Your task to perform on an android device: toggle location history Image 0: 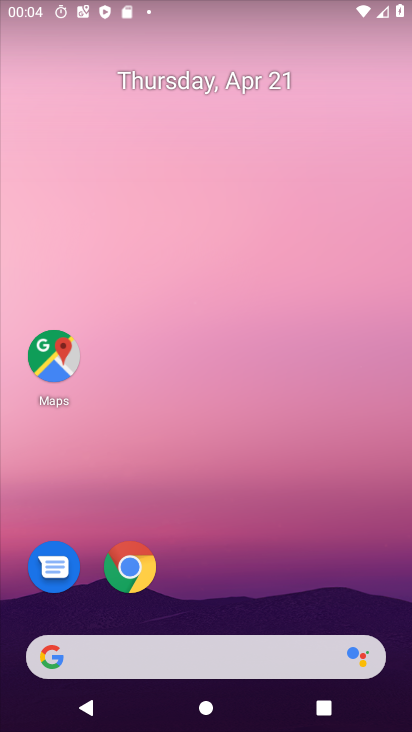
Step 0: drag from (235, 371) to (240, 259)
Your task to perform on an android device: toggle location history Image 1: 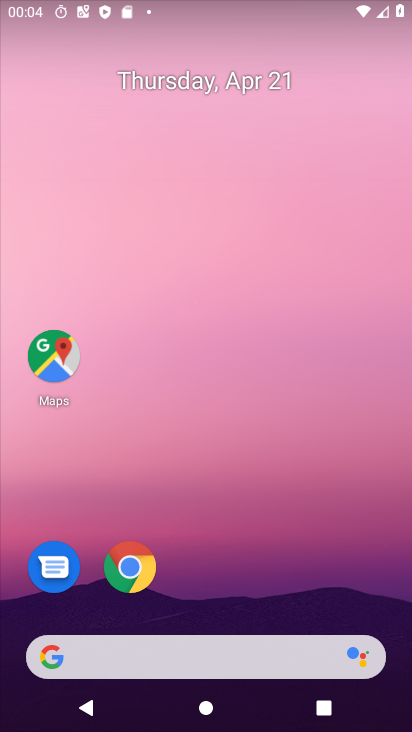
Step 1: drag from (192, 513) to (242, 169)
Your task to perform on an android device: toggle location history Image 2: 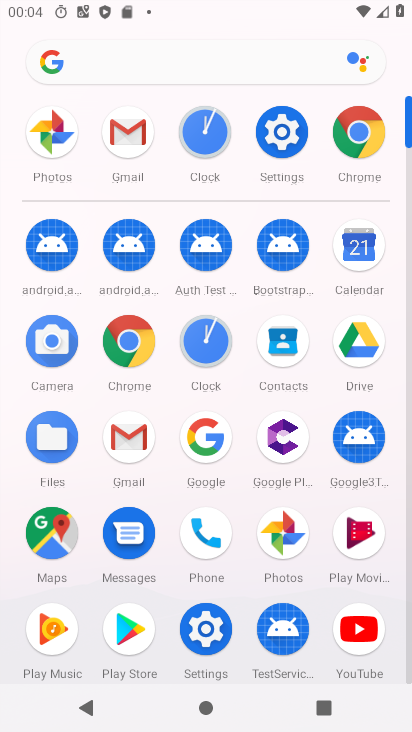
Step 2: click (132, 330)
Your task to perform on an android device: toggle location history Image 3: 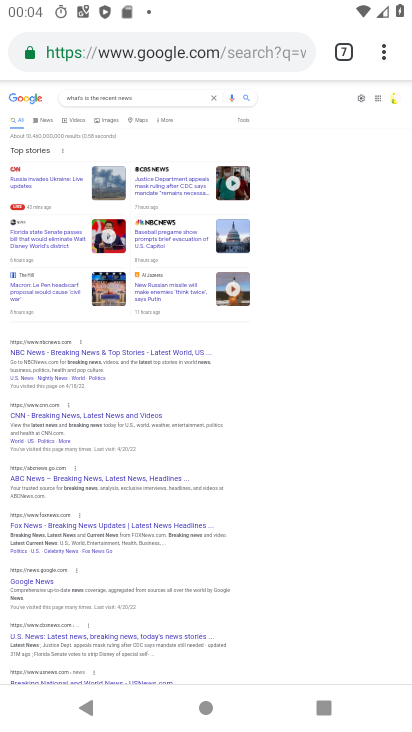
Step 3: press home button
Your task to perform on an android device: toggle location history Image 4: 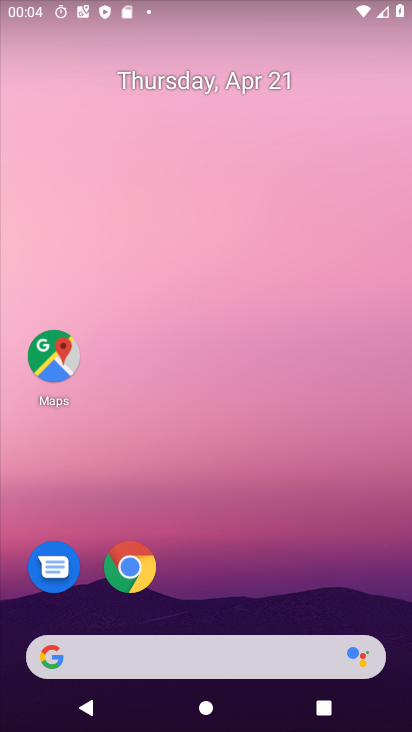
Step 4: drag from (226, 580) to (272, 198)
Your task to perform on an android device: toggle location history Image 5: 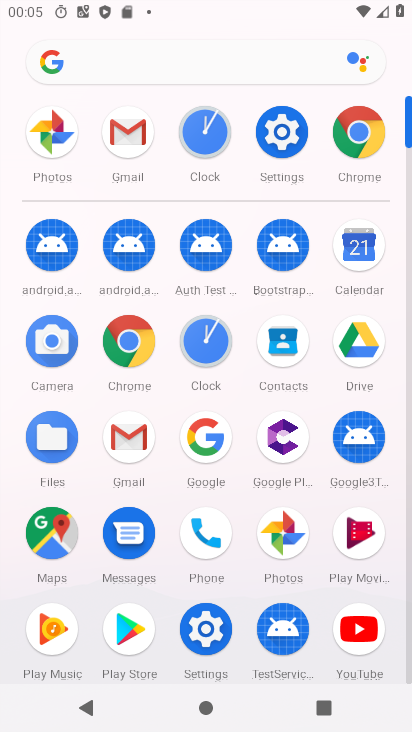
Step 5: click (54, 527)
Your task to perform on an android device: toggle location history Image 6: 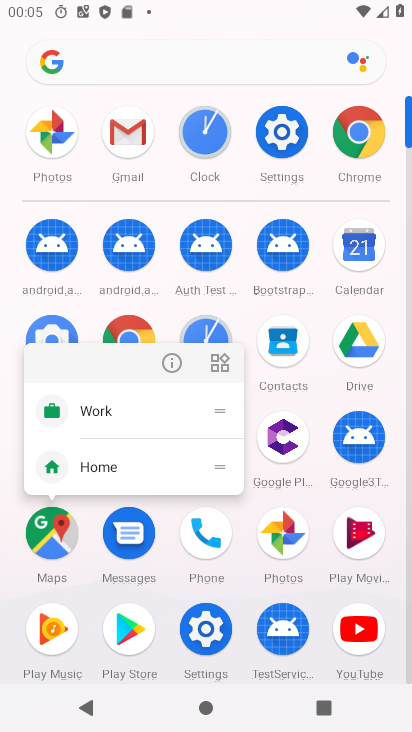
Step 6: click (54, 527)
Your task to perform on an android device: toggle location history Image 7: 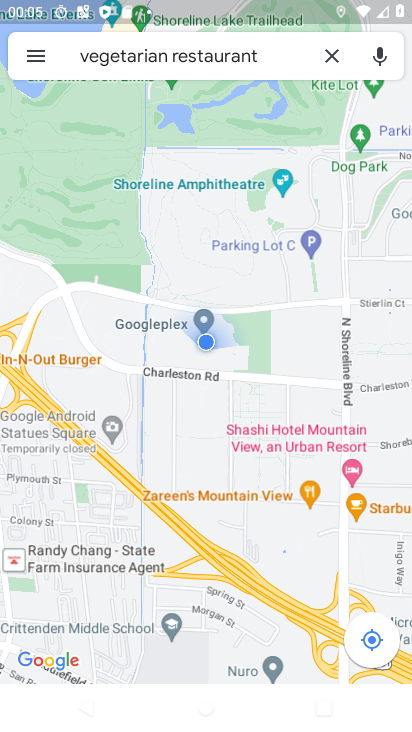
Step 7: click (31, 59)
Your task to perform on an android device: toggle location history Image 8: 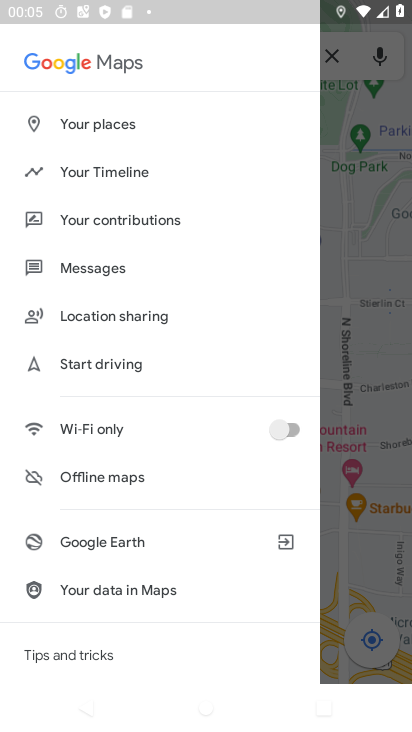
Step 8: click (121, 160)
Your task to perform on an android device: toggle location history Image 9: 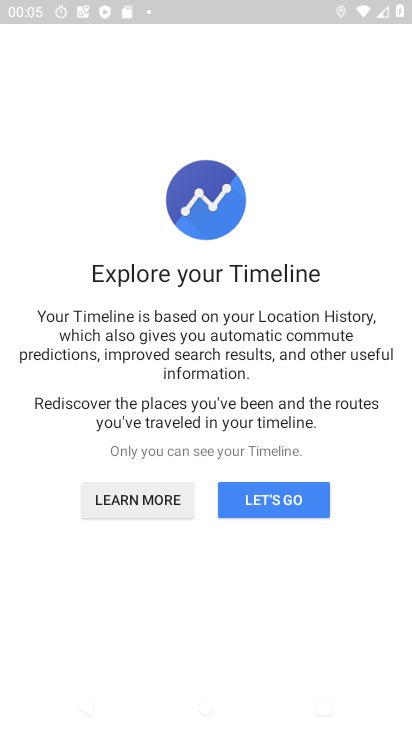
Step 9: click (242, 512)
Your task to perform on an android device: toggle location history Image 10: 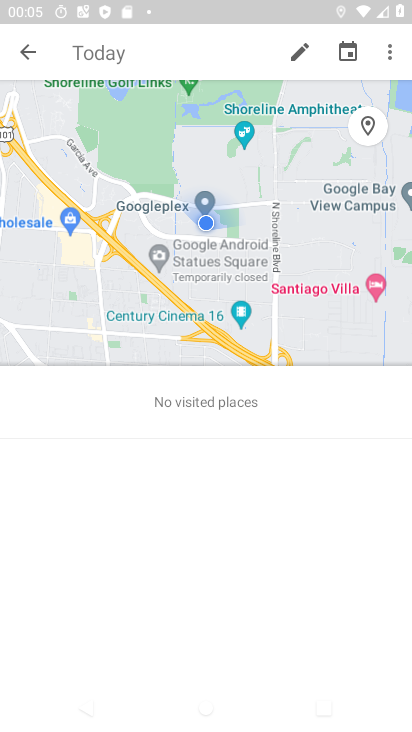
Step 10: click (387, 55)
Your task to perform on an android device: toggle location history Image 11: 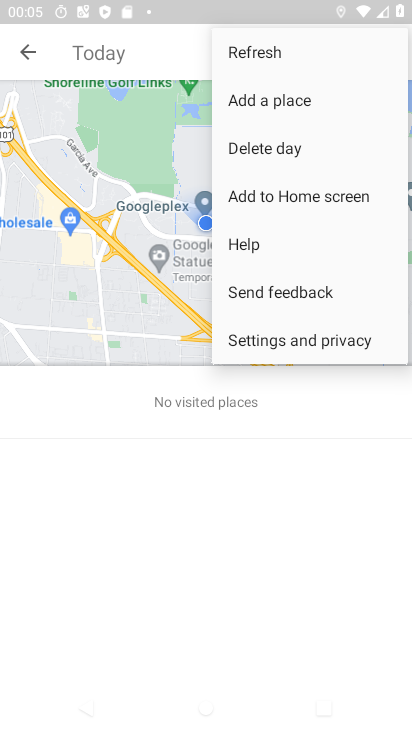
Step 11: click (289, 339)
Your task to perform on an android device: toggle location history Image 12: 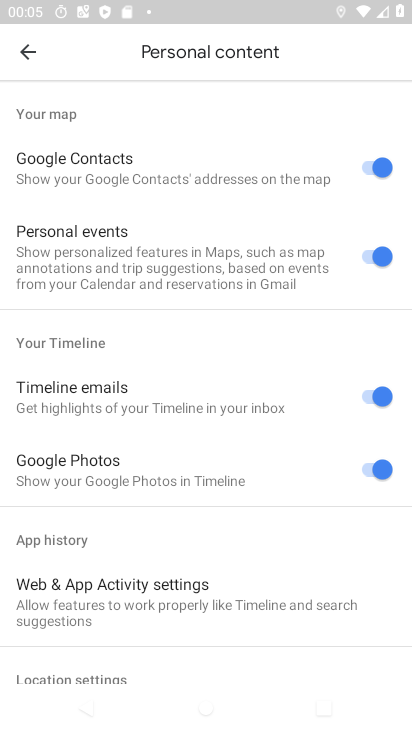
Step 12: drag from (143, 589) to (219, 137)
Your task to perform on an android device: toggle location history Image 13: 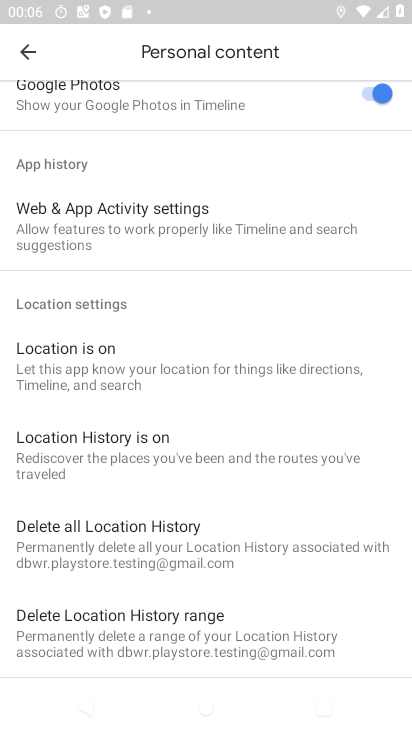
Step 13: click (195, 550)
Your task to perform on an android device: toggle location history Image 14: 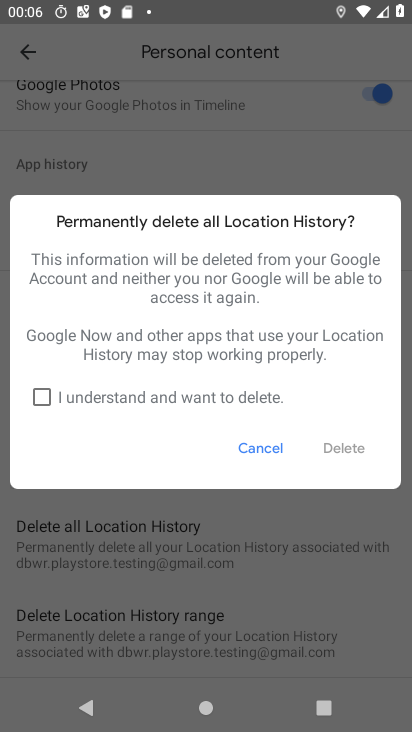
Step 14: click (247, 447)
Your task to perform on an android device: toggle location history Image 15: 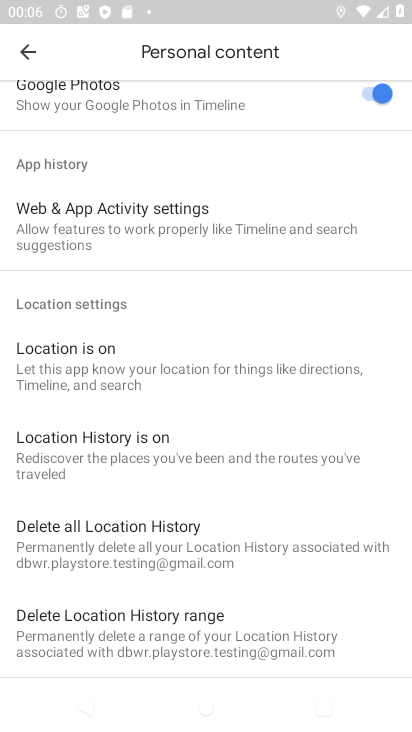
Step 15: click (200, 617)
Your task to perform on an android device: toggle location history Image 16: 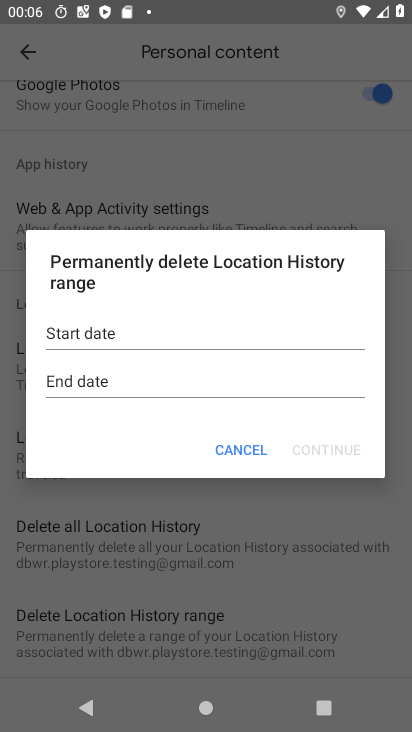
Step 16: click (225, 440)
Your task to perform on an android device: toggle location history Image 17: 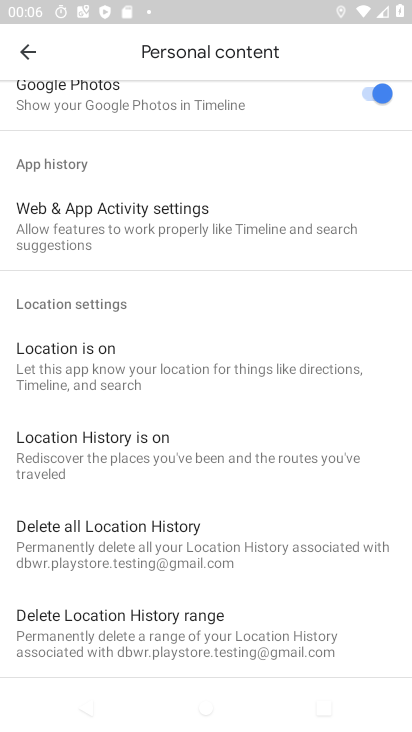
Step 17: drag from (176, 562) to (245, 258)
Your task to perform on an android device: toggle location history Image 18: 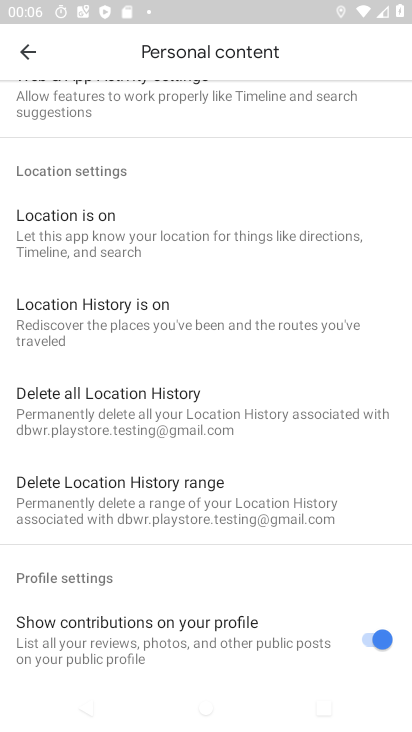
Step 18: click (172, 337)
Your task to perform on an android device: toggle location history Image 19: 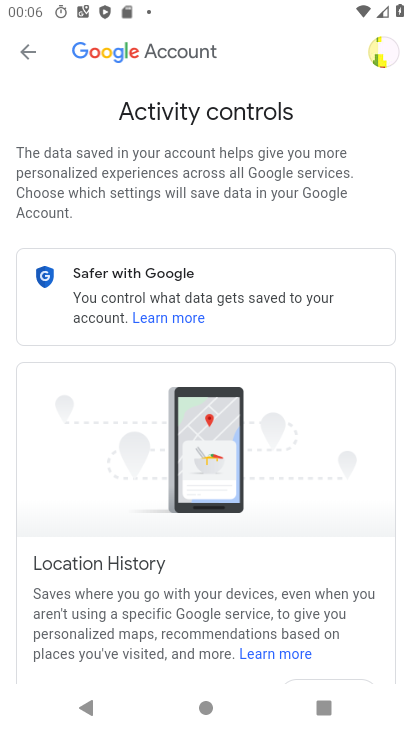
Step 19: drag from (215, 538) to (315, 59)
Your task to perform on an android device: toggle location history Image 20: 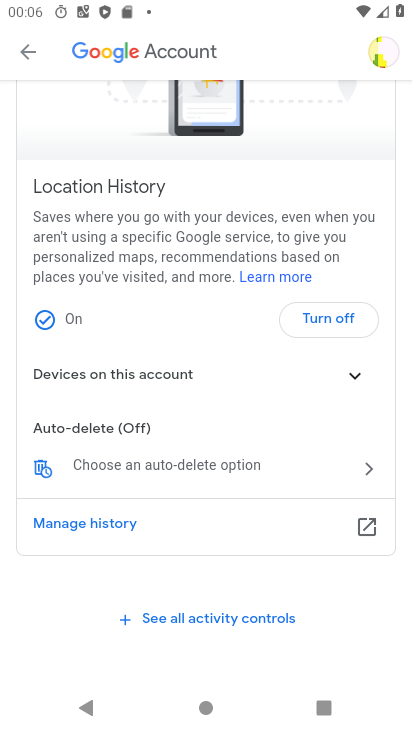
Step 20: click (326, 313)
Your task to perform on an android device: toggle location history Image 21: 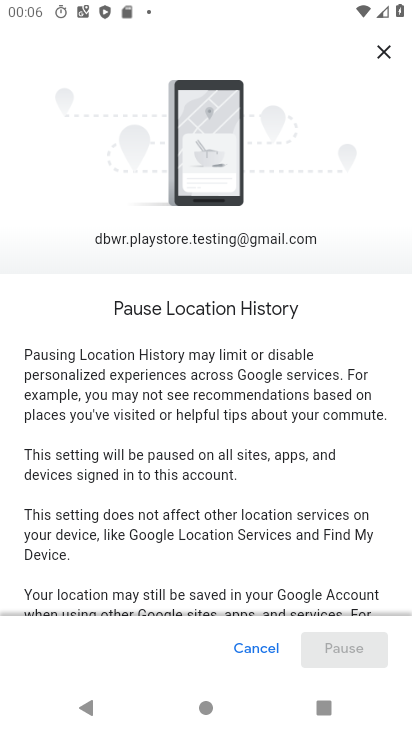
Step 21: click (247, 641)
Your task to perform on an android device: toggle location history Image 22: 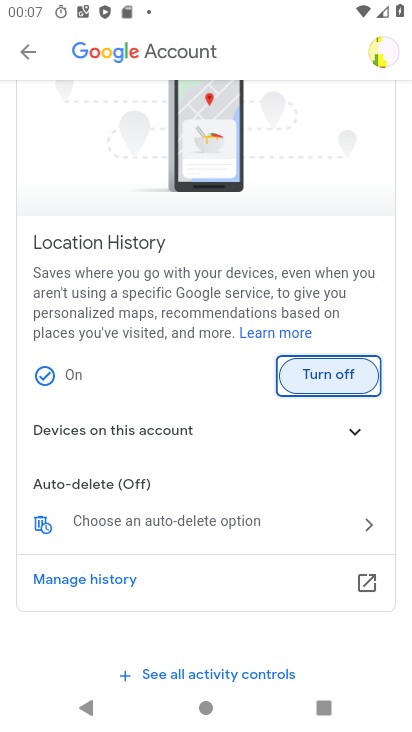
Step 22: task complete